Your task to perform on an android device: open wifi settings Image 0: 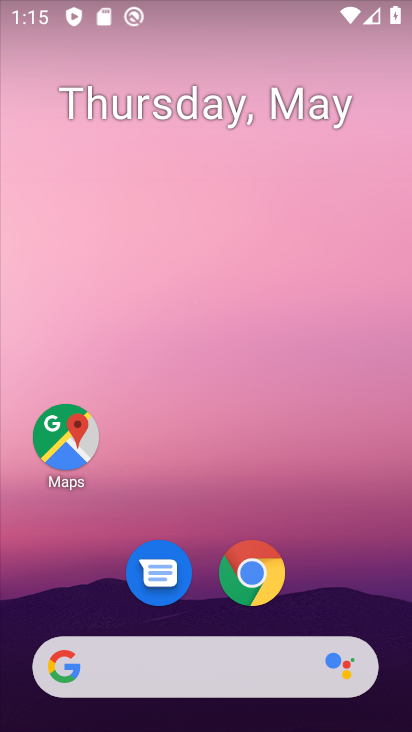
Step 0: drag from (32, 24) to (34, 342)
Your task to perform on an android device: open wifi settings Image 1: 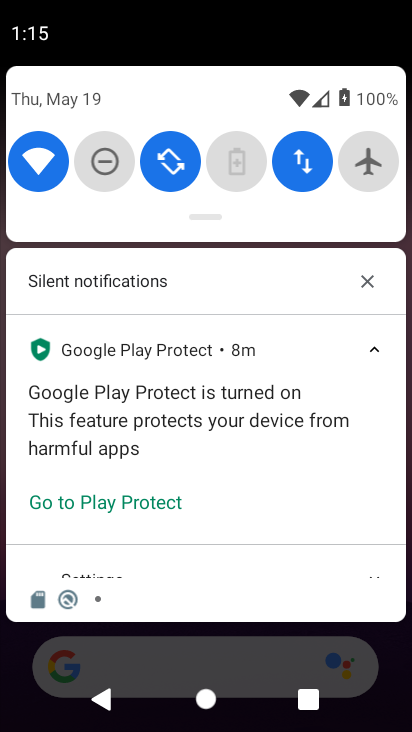
Step 1: click (50, 142)
Your task to perform on an android device: open wifi settings Image 2: 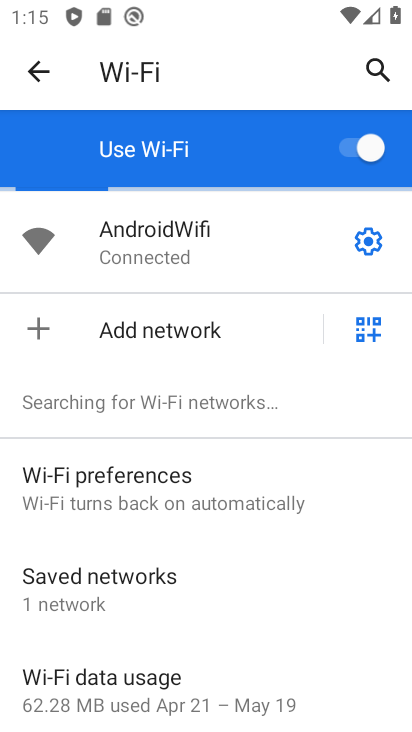
Step 2: task complete